Your task to perform on an android device: change the clock style Image 0: 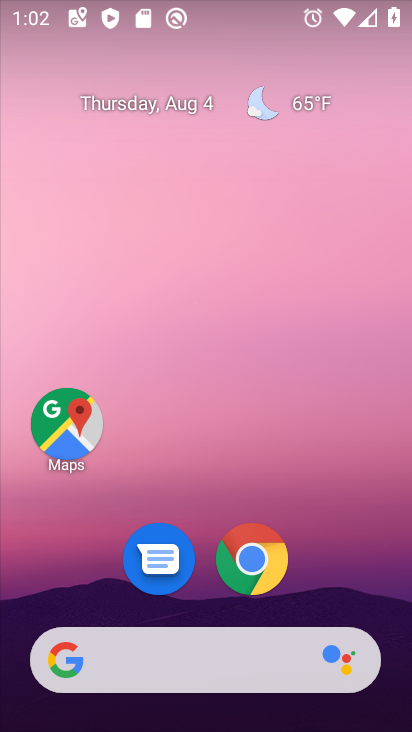
Step 0: drag from (222, 650) to (232, 211)
Your task to perform on an android device: change the clock style Image 1: 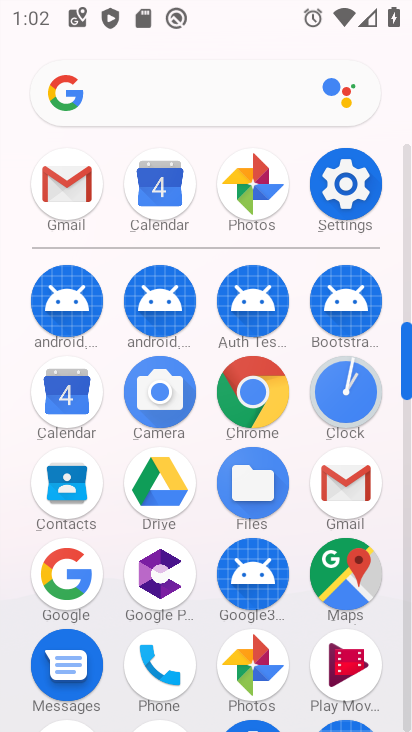
Step 1: click (344, 392)
Your task to perform on an android device: change the clock style Image 2: 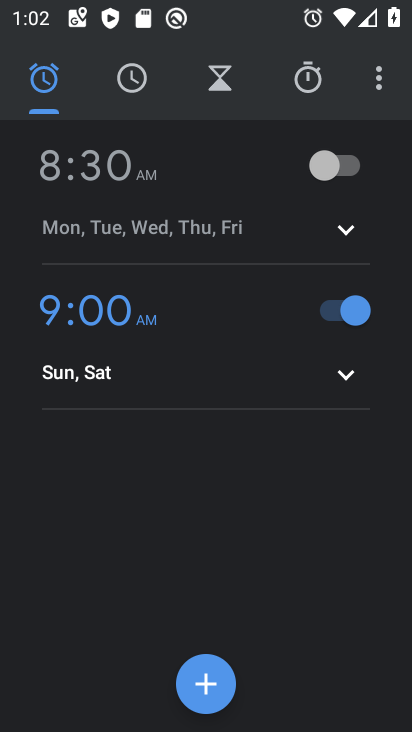
Step 2: click (379, 78)
Your task to perform on an android device: change the clock style Image 3: 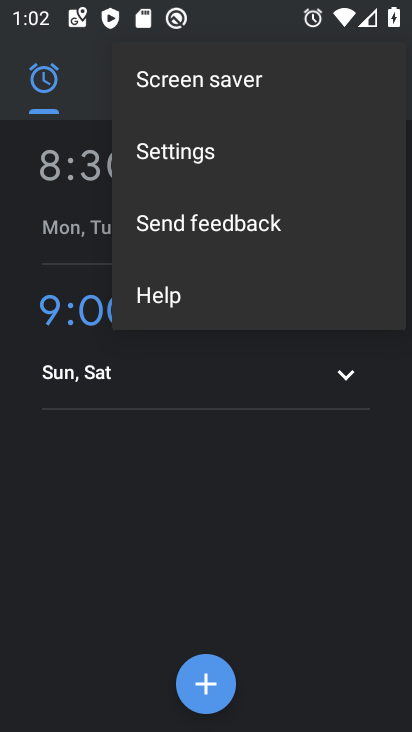
Step 3: click (185, 149)
Your task to perform on an android device: change the clock style Image 4: 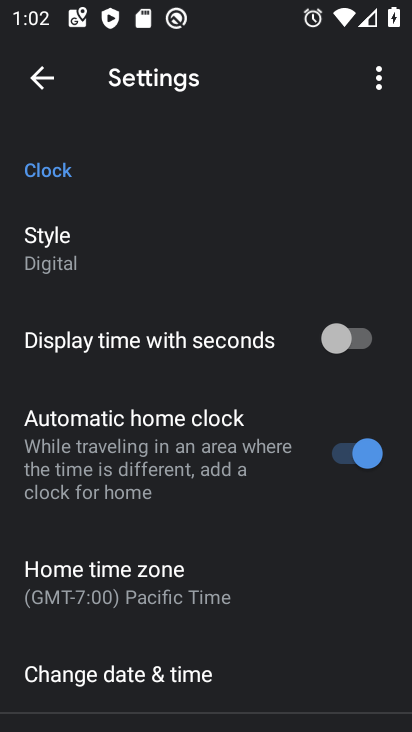
Step 4: click (68, 244)
Your task to perform on an android device: change the clock style Image 5: 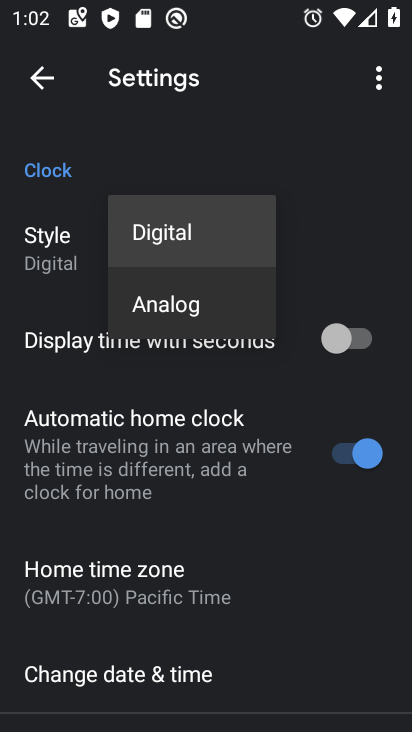
Step 5: click (164, 302)
Your task to perform on an android device: change the clock style Image 6: 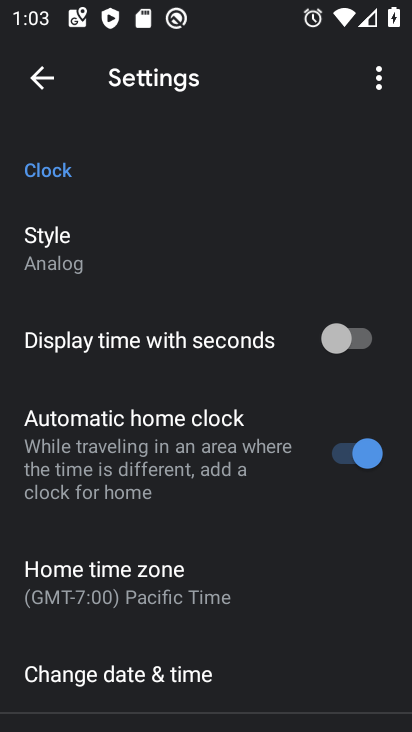
Step 6: task complete